Your task to perform on an android device: toggle priority inbox in the gmail app Image 0: 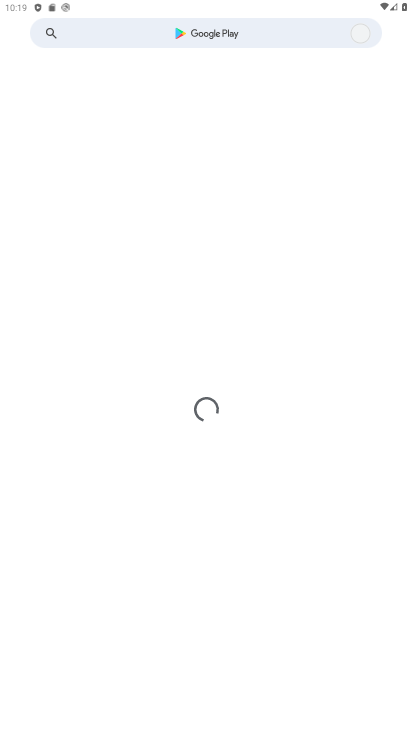
Step 0: press home button
Your task to perform on an android device: toggle priority inbox in the gmail app Image 1: 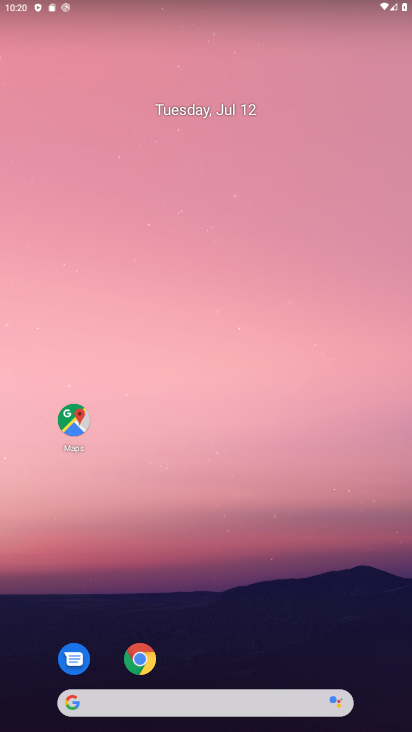
Step 1: drag from (192, 654) to (112, 99)
Your task to perform on an android device: toggle priority inbox in the gmail app Image 2: 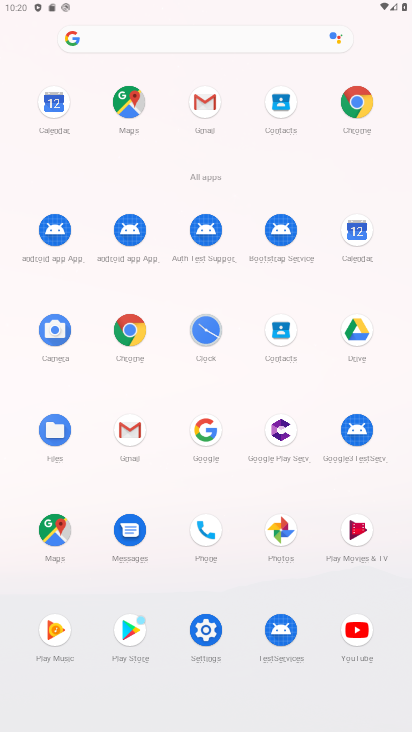
Step 2: click (198, 109)
Your task to perform on an android device: toggle priority inbox in the gmail app Image 3: 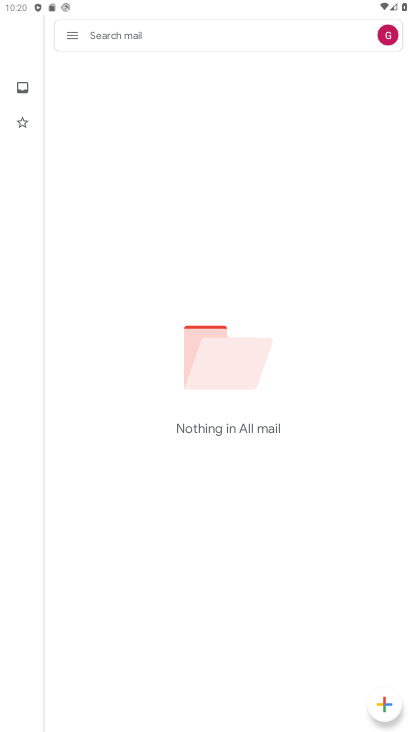
Step 3: click (69, 33)
Your task to perform on an android device: toggle priority inbox in the gmail app Image 4: 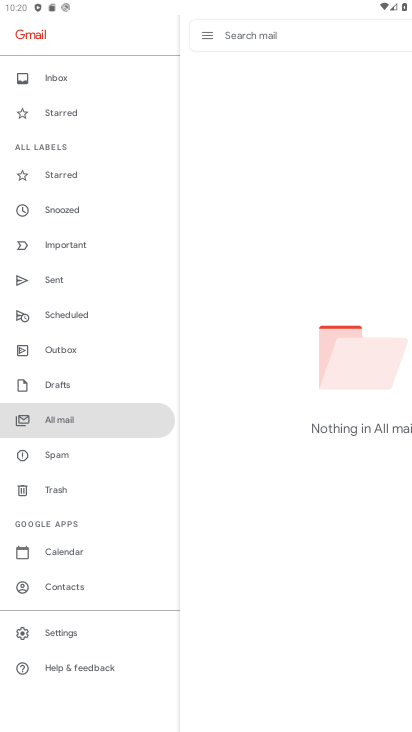
Step 4: click (51, 636)
Your task to perform on an android device: toggle priority inbox in the gmail app Image 5: 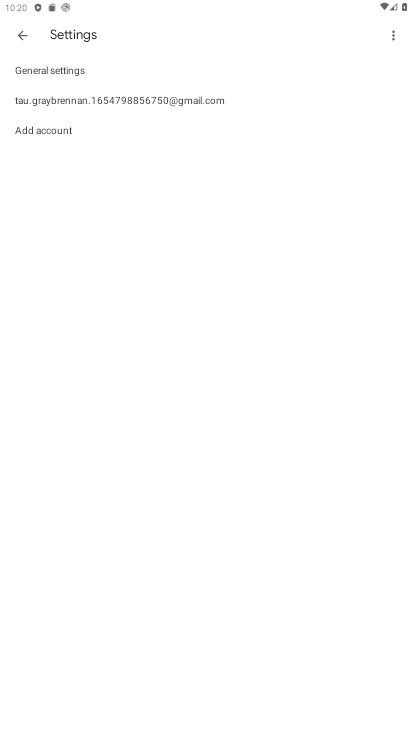
Step 5: click (99, 102)
Your task to perform on an android device: toggle priority inbox in the gmail app Image 6: 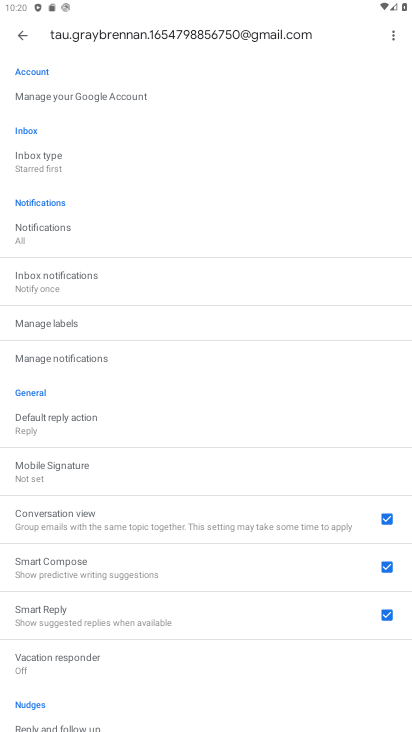
Step 6: click (62, 173)
Your task to perform on an android device: toggle priority inbox in the gmail app Image 7: 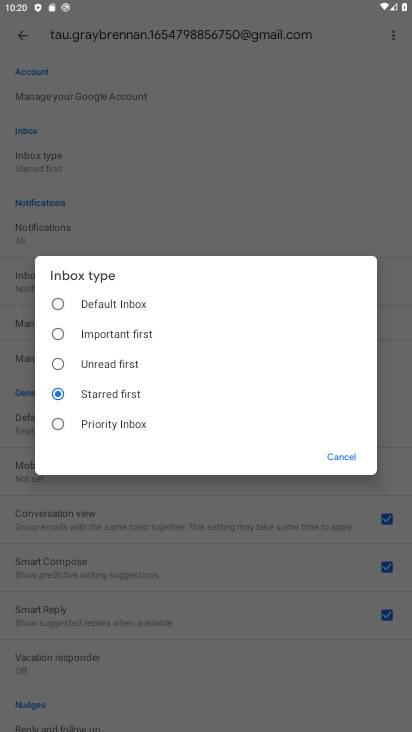
Step 7: click (54, 424)
Your task to perform on an android device: toggle priority inbox in the gmail app Image 8: 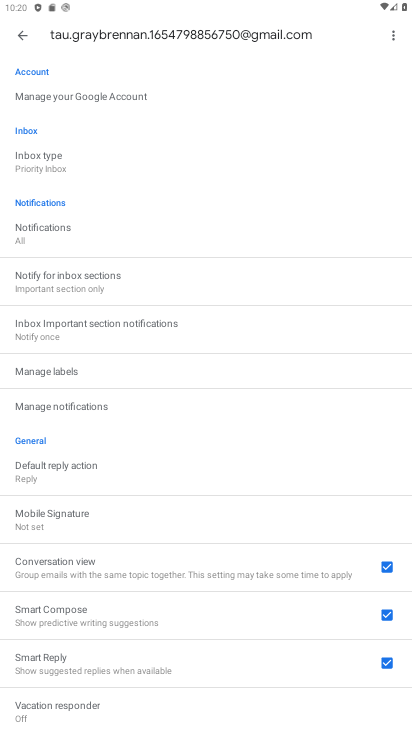
Step 8: task complete